Your task to perform on an android device: set the stopwatch Image 0: 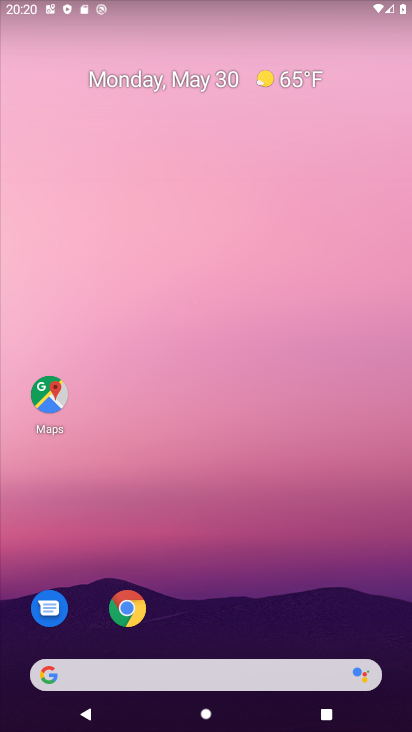
Step 0: drag from (185, 605) to (153, 253)
Your task to perform on an android device: set the stopwatch Image 1: 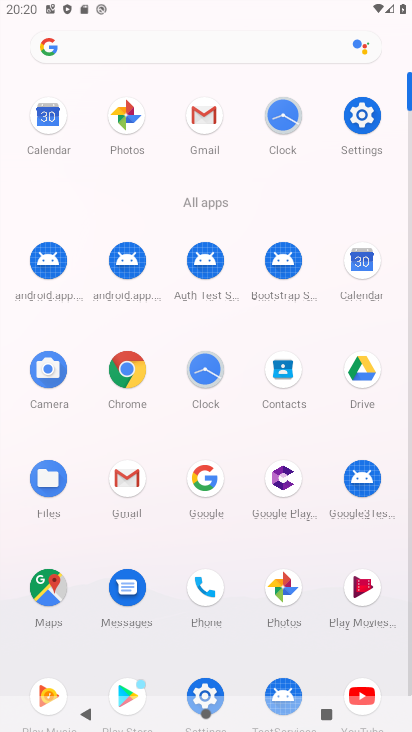
Step 1: click (280, 114)
Your task to perform on an android device: set the stopwatch Image 2: 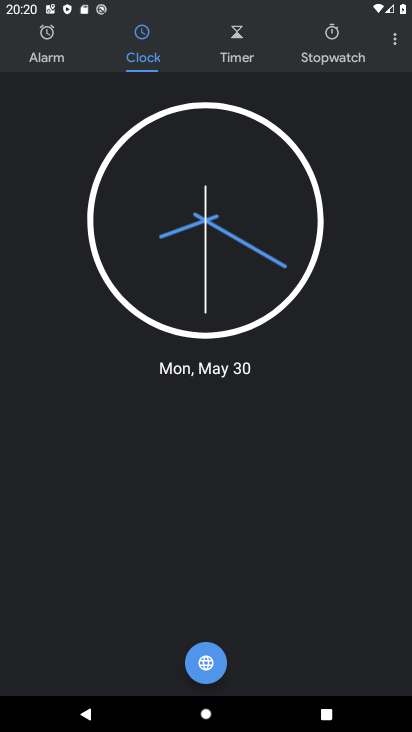
Step 2: click (319, 38)
Your task to perform on an android device: set the stopwatch Image 3: 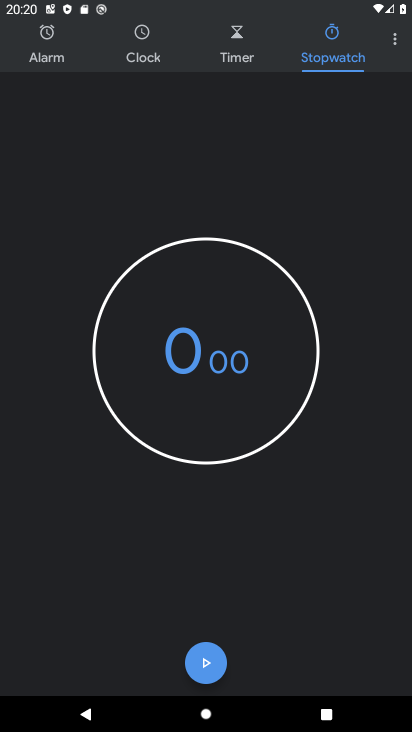
Step 3: click (197, 659)
Your task to perform on an android device: set the stopwatch Image 4: 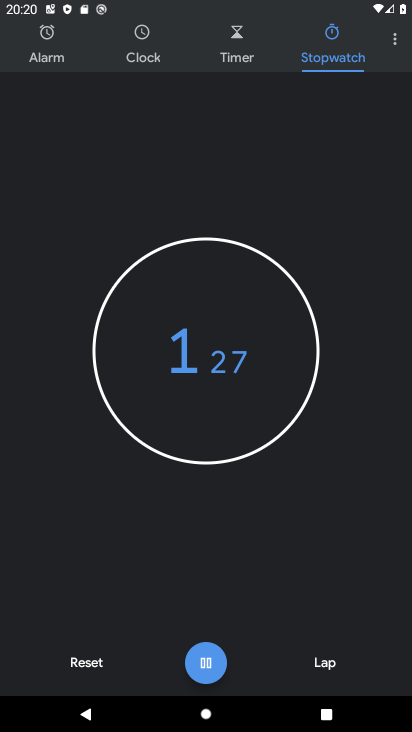
Step 4: task complete